Your task to perform on an android device: Is it going to rain today? Image 0: 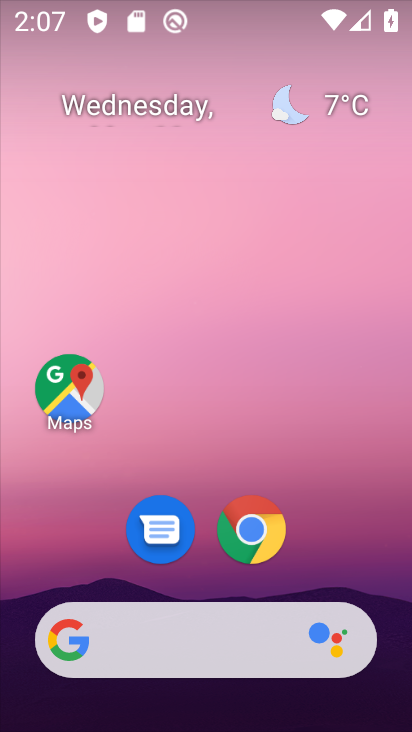
Step 0: click (139, 653)
Your task to perform on an android device: Is it going to rain today? Image 1: 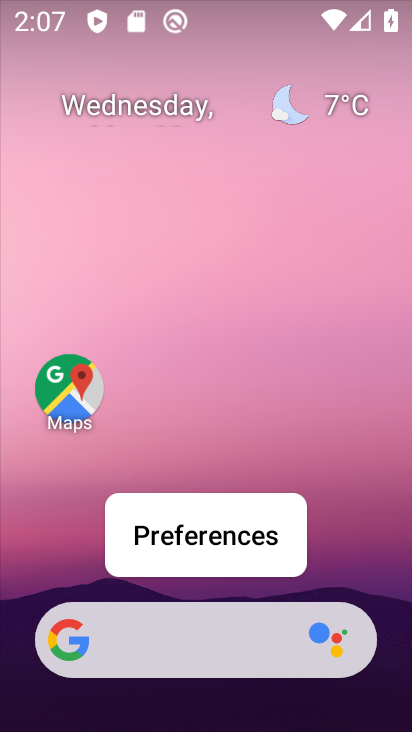
Step 1: click (138, 641)
Your task to perform on an android device: Is it going to rain today? Image 2: 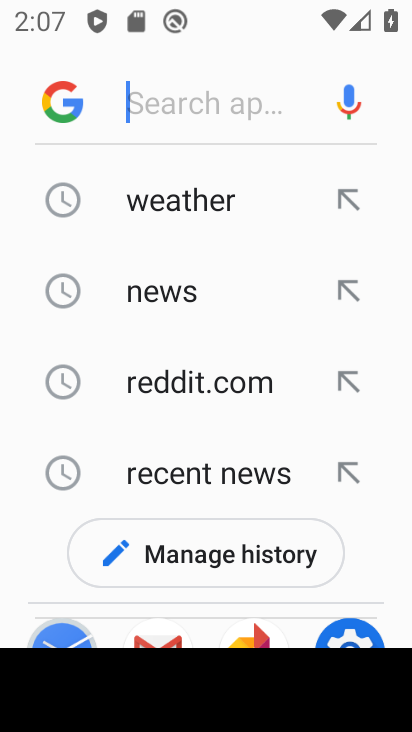
Step 2: click (165, 190)
Your task to perform on an android device: Is it going to rain today? Image 3: 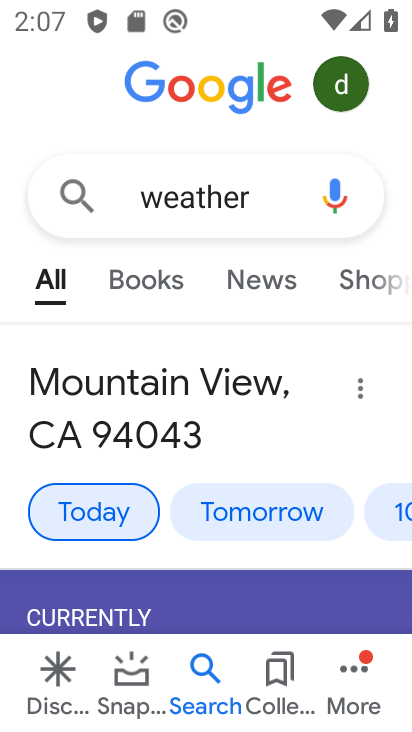
Step 3: task complete